Your task to perform on an android device: turn off data saver in the chrome app Image 0: 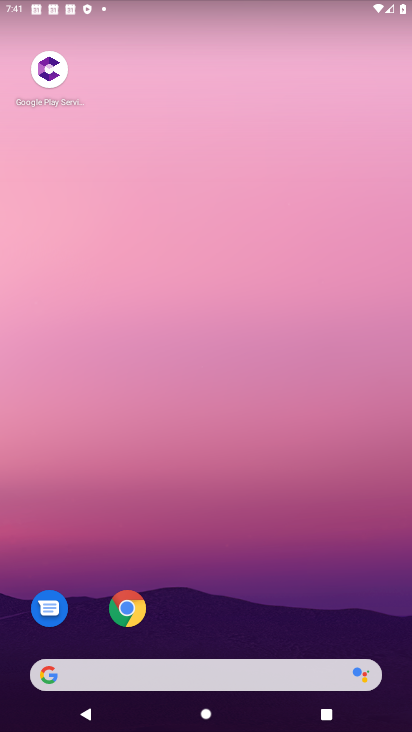
Step 0: click (126, 603)
Your task to perform on an android device: turn off data saver in the chrome app Image 1: 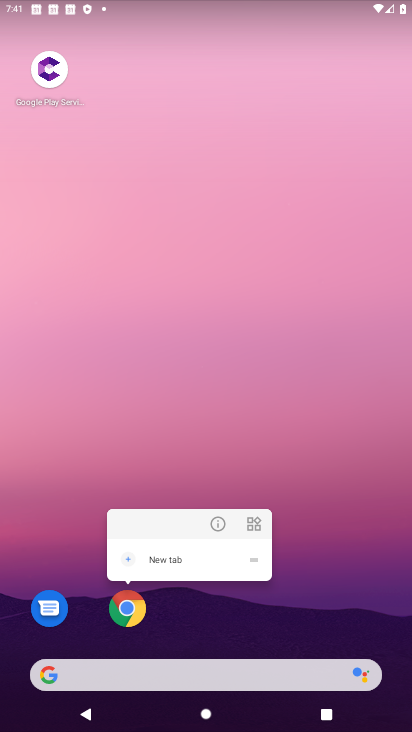
Step 1: click (133, 618)
Your task to perform on an android device: turn off data saver in the chrome app Image 2: 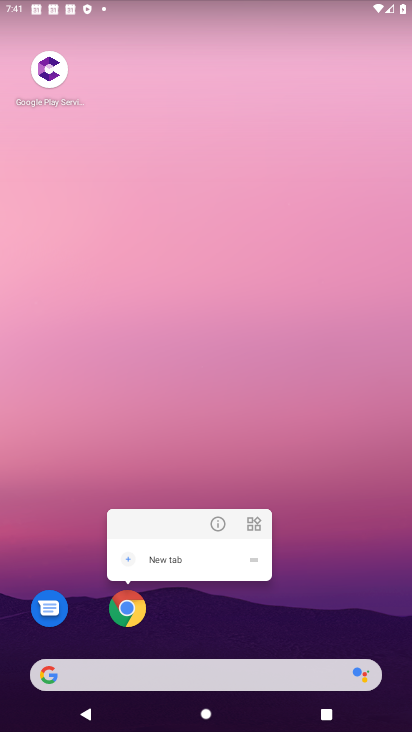
Step 2: click (133, 618)
Your task to perform on an android device: turn off data saver in the chrome app Image 3: 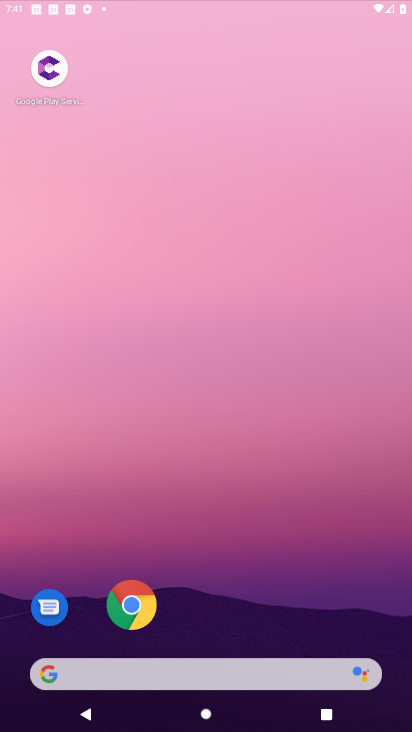
Step 3: click (133, 618)
Your task to perform on an android device: turn off data saver in the chrome app Image 4: 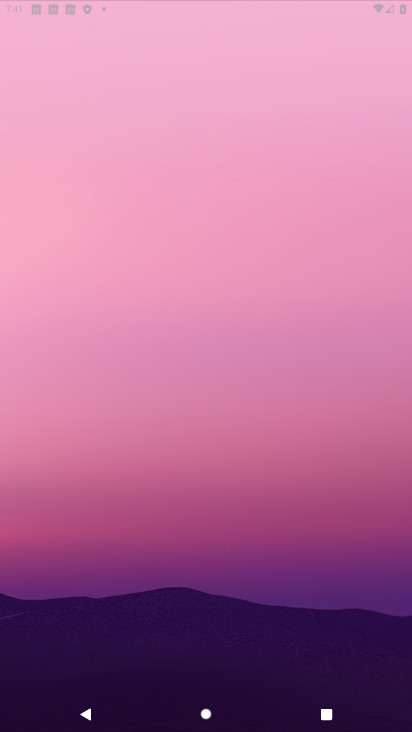
Step 4: click (133, 618)
Your task to perform on an android device: turn off data saver in the chrome app Image 5: 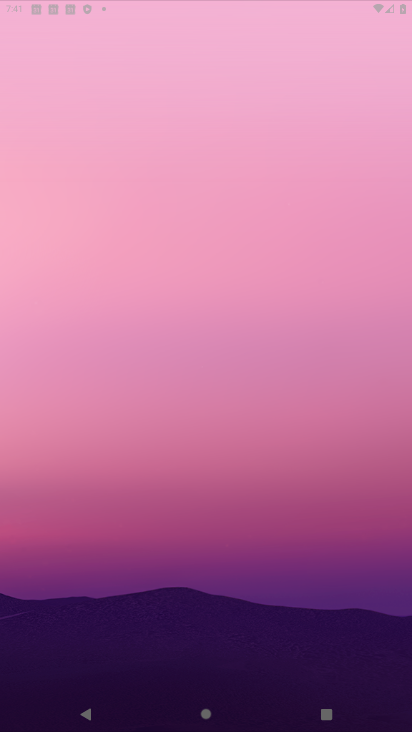
Step 5: click (133, 618)
Your task to perform on an android device: turn off data saver in the chrome app Image 6: 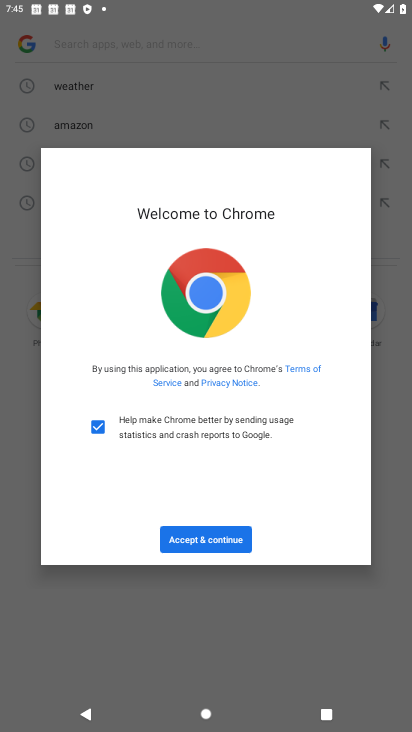
Step 6: click (202, 535)
Your task to perform on an android device: turn off data saver in the chrome app Image 7: 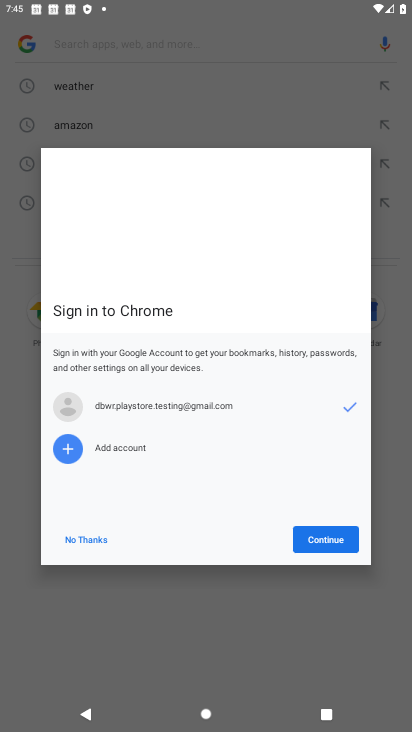
Step 7: click (323, 543)
Your task to perform on an android device: turn off data saver in the chrome app Image 8: 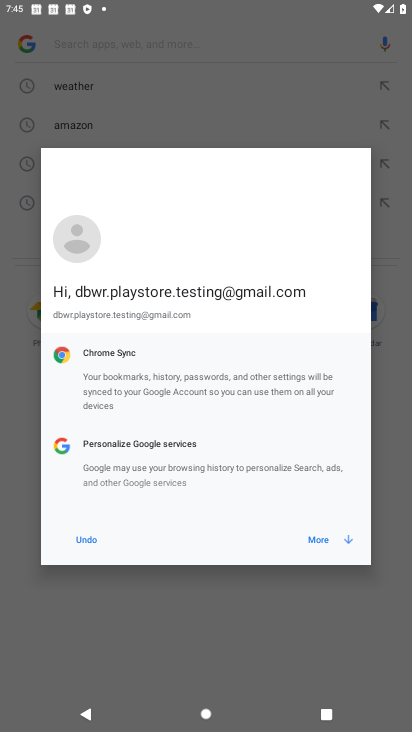
Step 8: click (323, 543)
Your task to perform on an android device: turn off data saver in the chrome app Image 9: 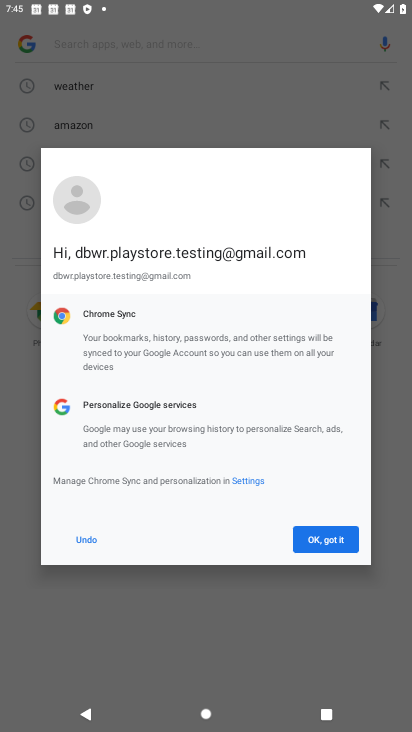
Step 9: click (323, 543)
Your task to perform on an android device: turn off data saver in the chrome app Image 10: 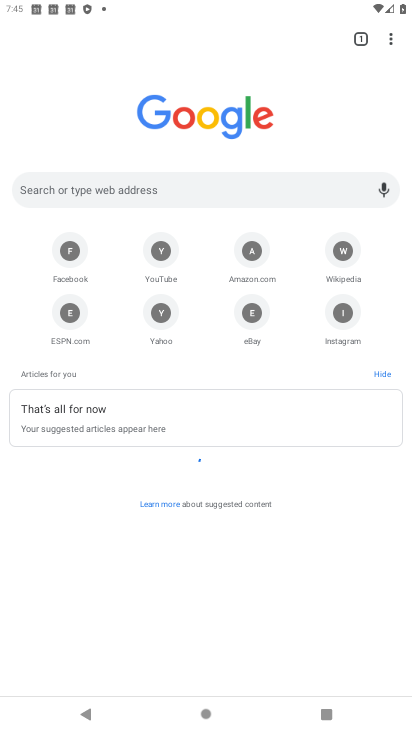
Step 10: click (391, 37)
Your task to perform on an android device: turn off data saver in the chrome app Image 11: 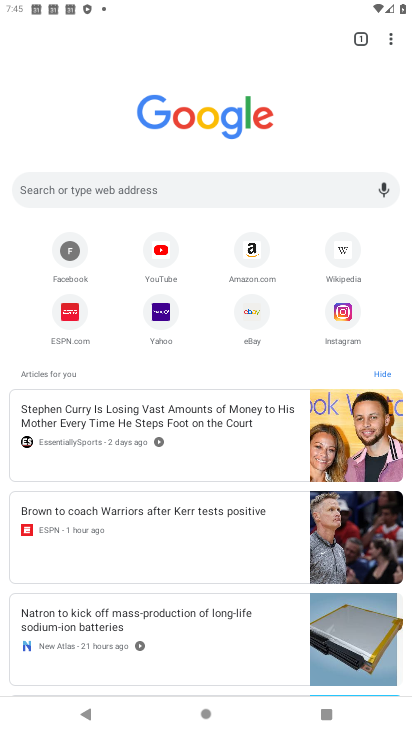
Step 11: click (391, 37)
Your task to perform on an android device: turn off data saver in the chrome app Image 12: 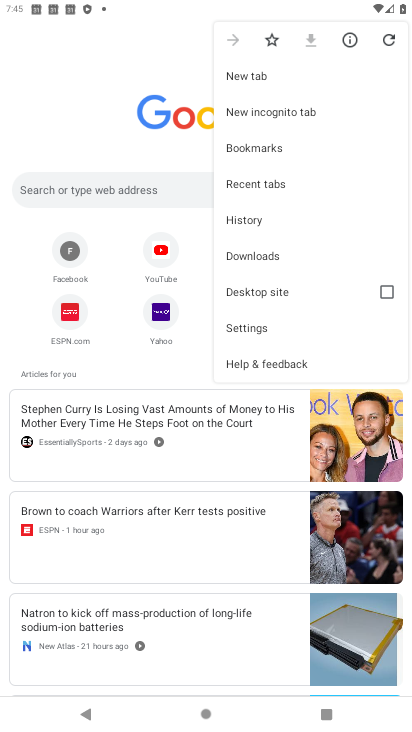
Step 12: click (270, 340)
Your task to perform on an android device: turn off data saver in the chrome app Image 13: 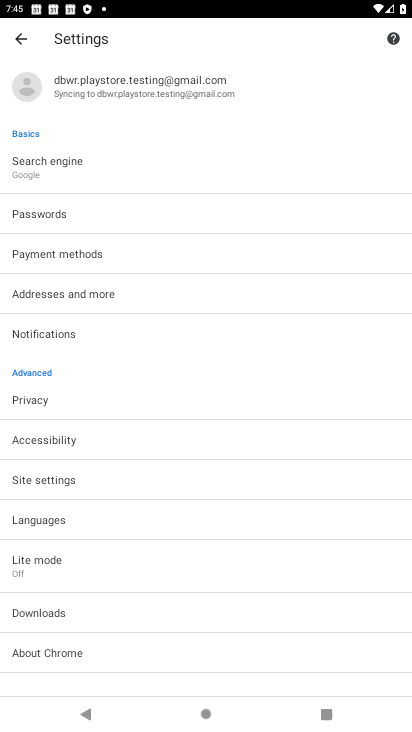
Step 13: click (57, 576)
Your task to perform on an android device: turn off data saver in the chrome app Image 14: 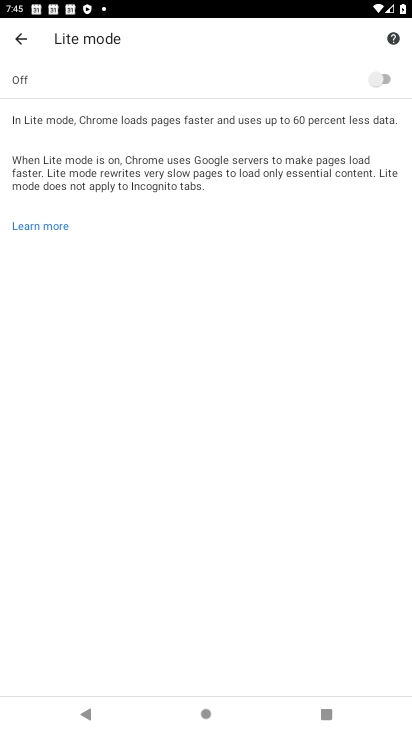
Step 14: task complete